Your task to perform on an android device: What's on my calendar today? Image 0: 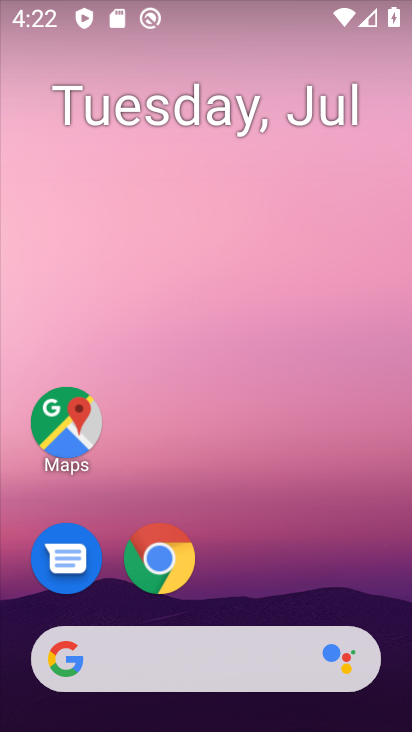
Step 0: drag from (222, 578) to (253, 209)
Your task to perform on an android device: What's on my calendar today? Image 1: 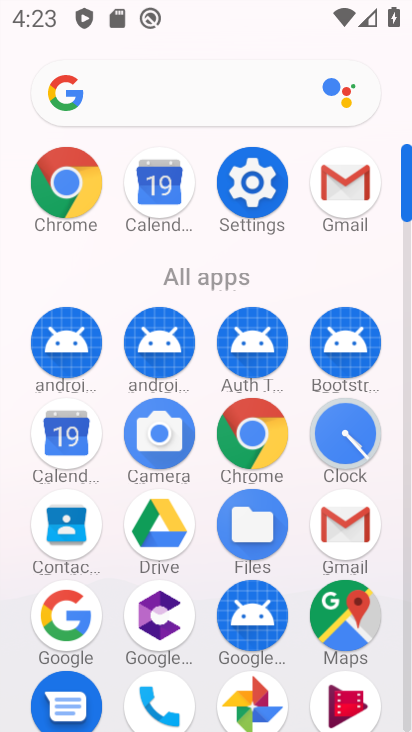
Step 1: click (62, 435)
Your task to perform on an android device: What's on my calendar today? Image 2: 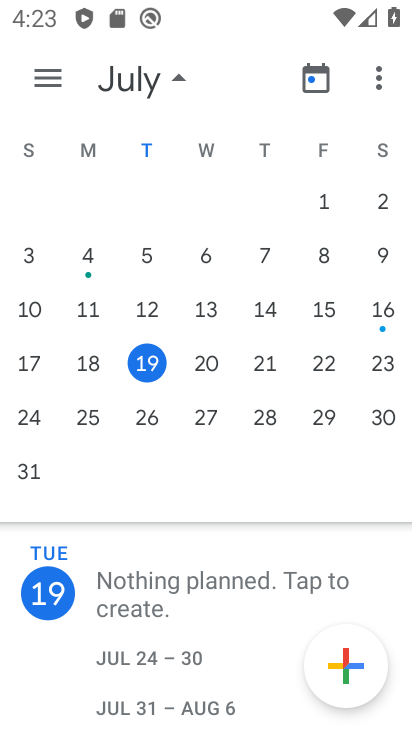
Step 2: click (152, 364)
Your task to perform on an android device: What's on my calendar today? Image 3: 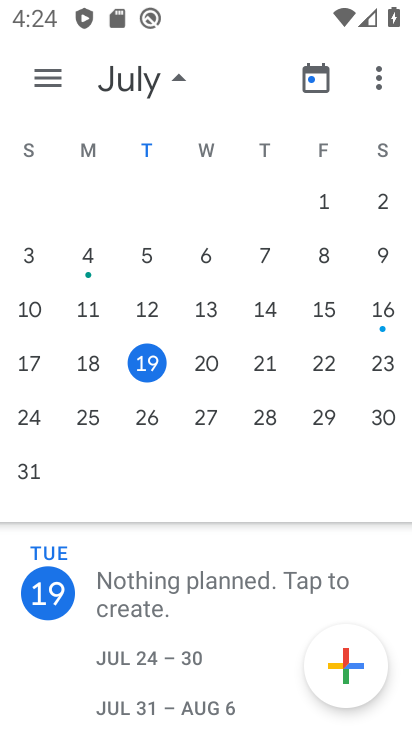
Step 3: task complete